Your task to perform on an android device: Search for sushi restaurants on Maps Image 0: 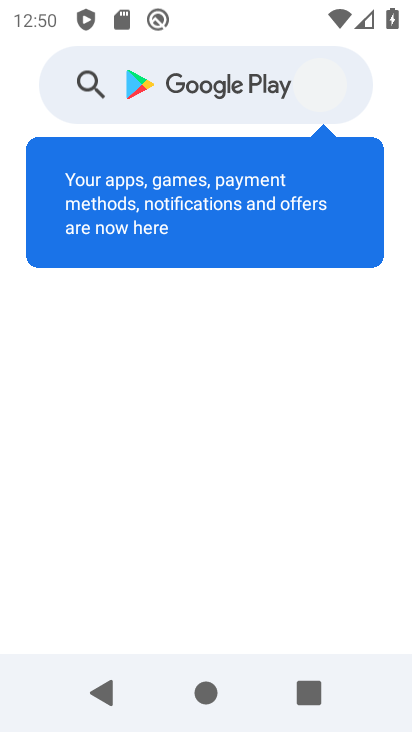
Step 0: press home button
Your task to perform on an android device: Search for sushi restaurants on Maps Image 1: 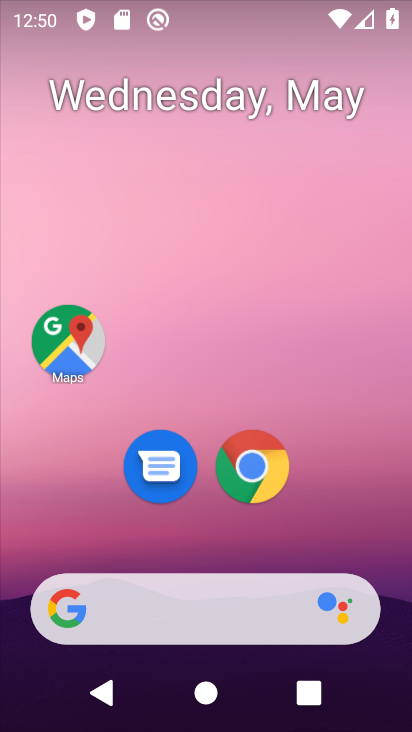
Step 1: click (67, 341)
Your task to perform on an android device: Search for sushi restaurants on Maps Image 2: 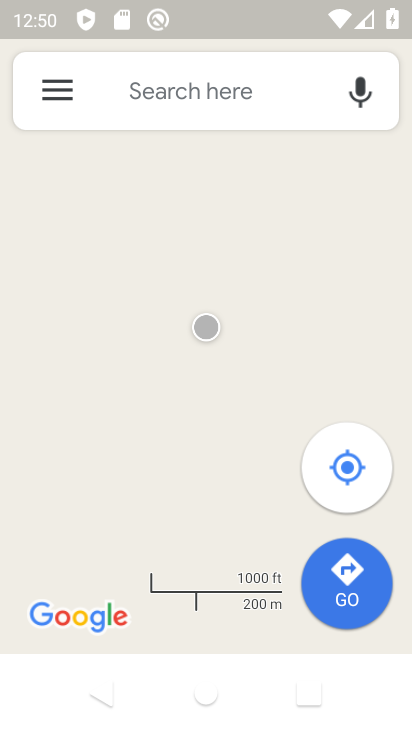
Step 2: click (182, 105)
Your task to perform on an android device: Search for sushi restaurants on Maps Image 3: 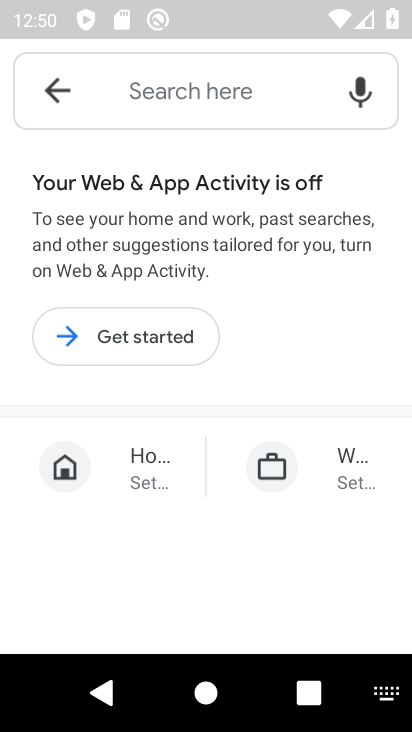
Step 3: click (152, 335)
Your task to perform on an android device: Search for sushi restaurants on Maps Image 4: 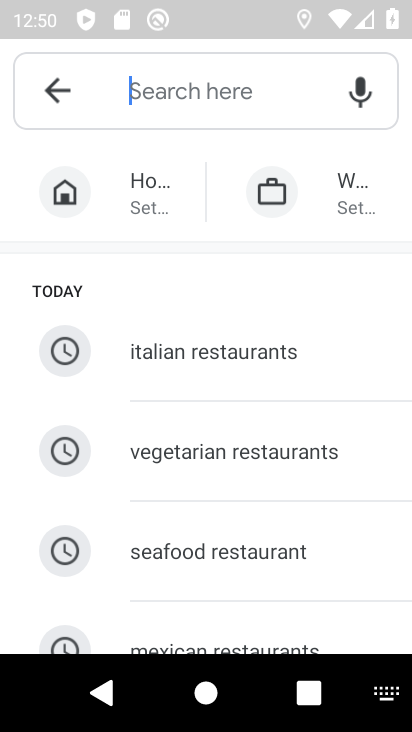
Step 4: drag from (222, 550) to (227, 247)
Your task to perform on an android device: Search for sushi restaurants on Maps Image 5: 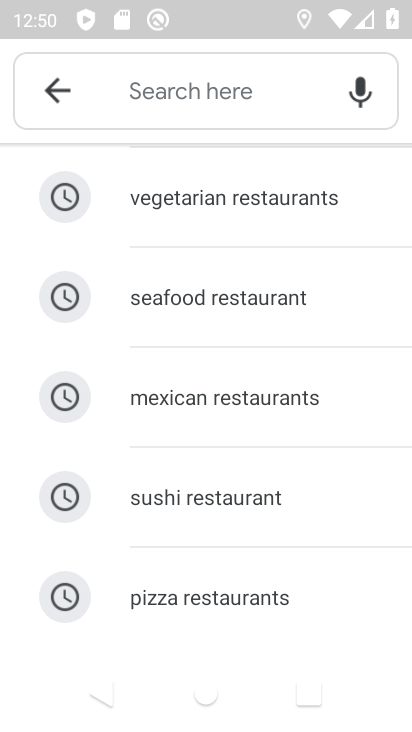
Step 5: click (183, 511)
Your task to perform on an android device: Search for sushi restaurants on Maps Image 6: 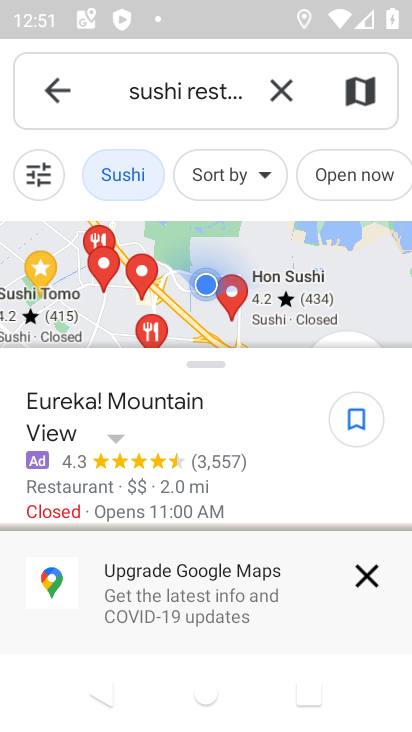
Step 6: task complete